Your task to perform on an android device: Show me productivity apps on the Play Store Image 0: 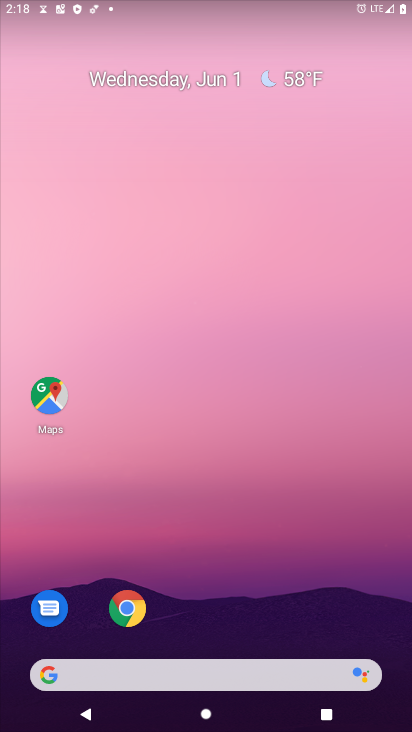
Step 0: click (312, 541)
Your task to perform on an android device: Show me productivity apps on the Play Store Image 1: 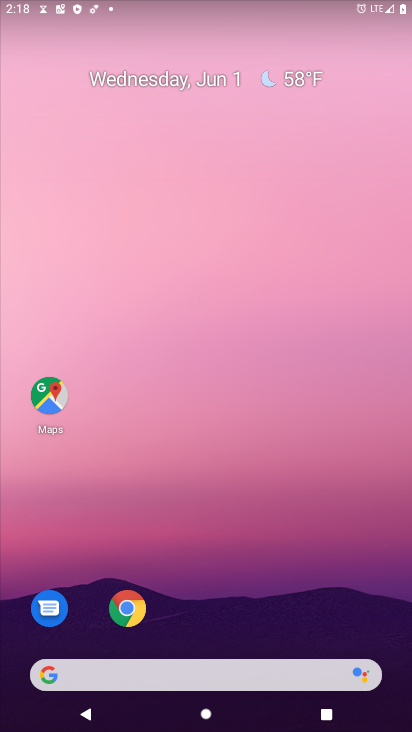
Step 1: drag from (309, 511) to (315, 308)
Your task to perform on an android device: Show me productivity apps on the Play Store Image 2: 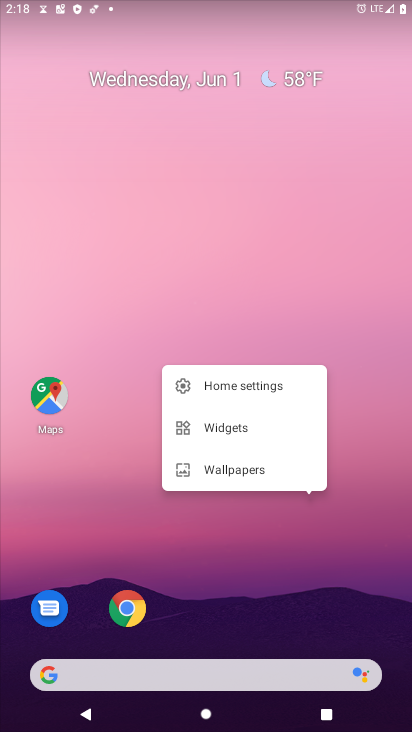
Step 2: click (315, 308)
Your task to perform on an android device: Show me productivity apps on the Play Store Image 3: 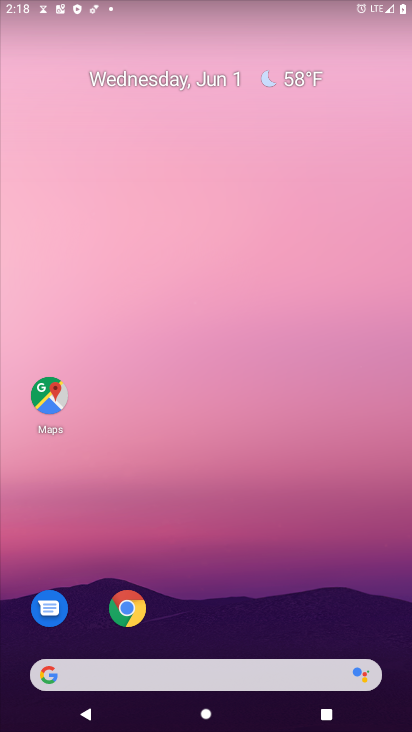
Step 3: click (315, 308)
Your task to perform on an android device: Show me productivity apps on the Play Store Image 4: 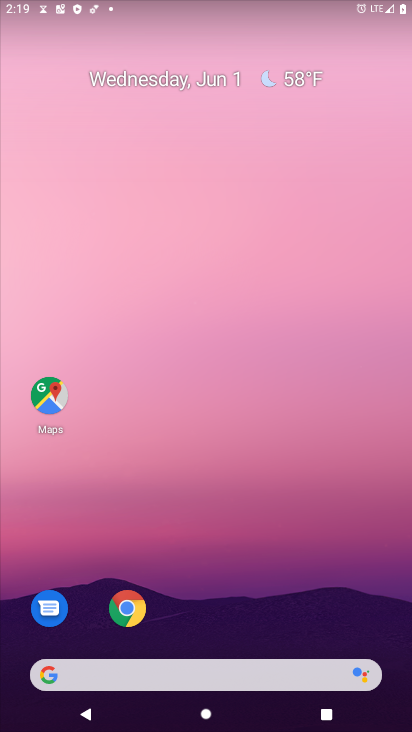
Step 4: drag from (196, 587) to (203, 170)
Your task to perform on an android device: Show me productivity apps on the Play Store Image 5: 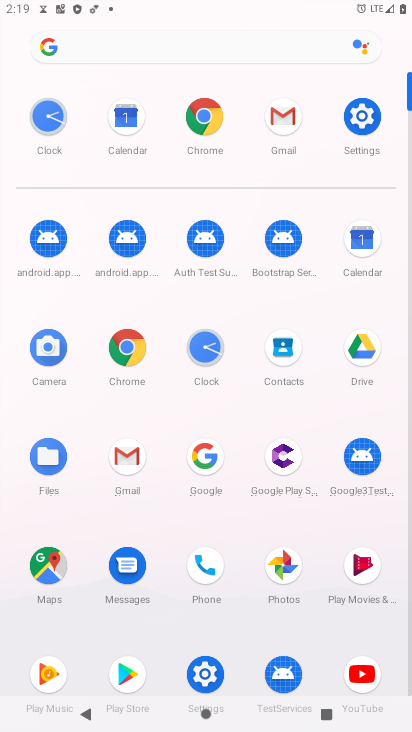
Step 5: click (118, 673)
Your task to perform on an android device: Show me productivity apps on the Play Store Image 6: 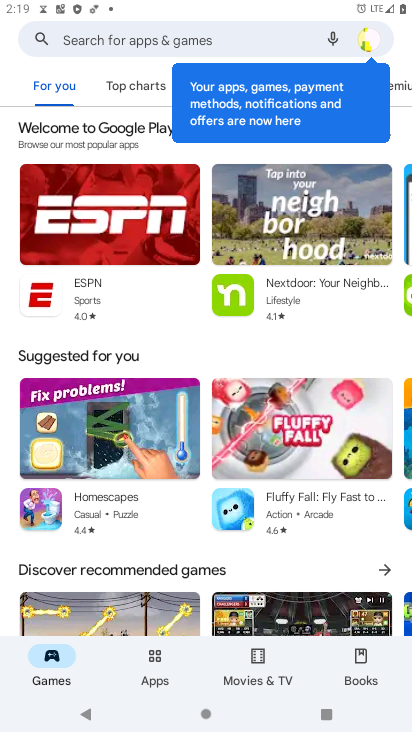
Step 6: click (77, 29)
Your task to perform on an android device: Show me productivity apps on the Play Store Image 7: 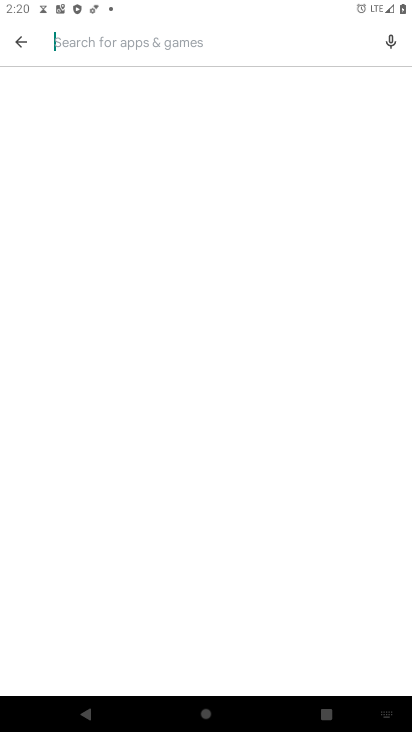
Step 7: type "productivity app"
Your task to perform on an android device: Show me productivity apps on the Play Store Image 8: 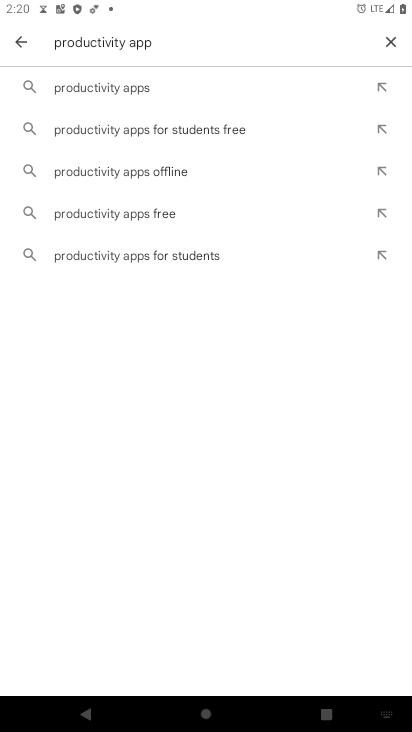
Step 8: click (188, 87)
Your task to perform on an android device: Show me productivity apps on the Play Store Image 9: 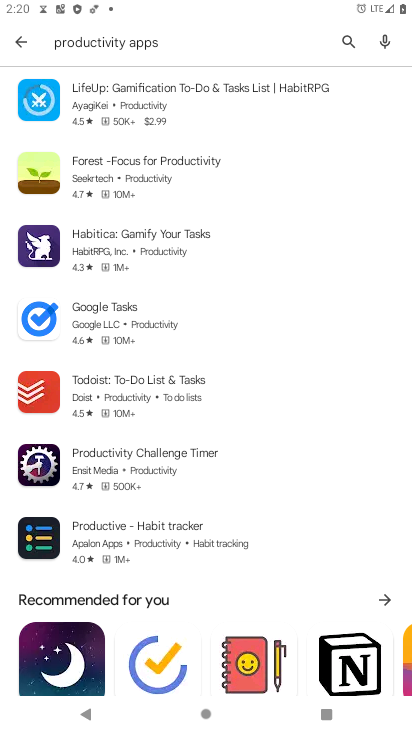
Step 9: task complete